Your task to perform on an android device: turn off smart reply in the gmail app Image 0: 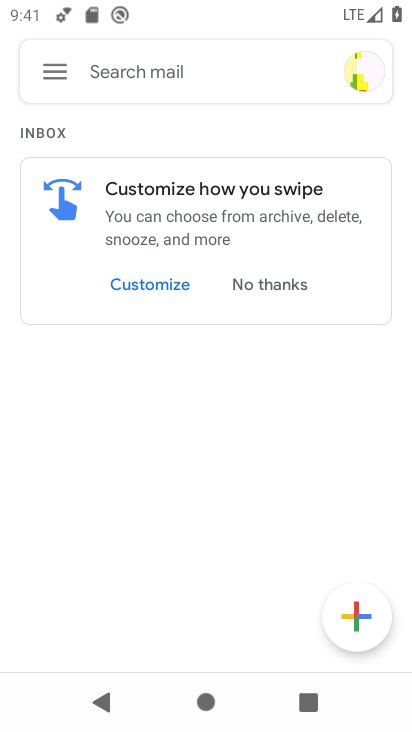
Step 0: click (57, 58)
Your task to perform on an android device: turn off smart reply in the gmail app Image 1: 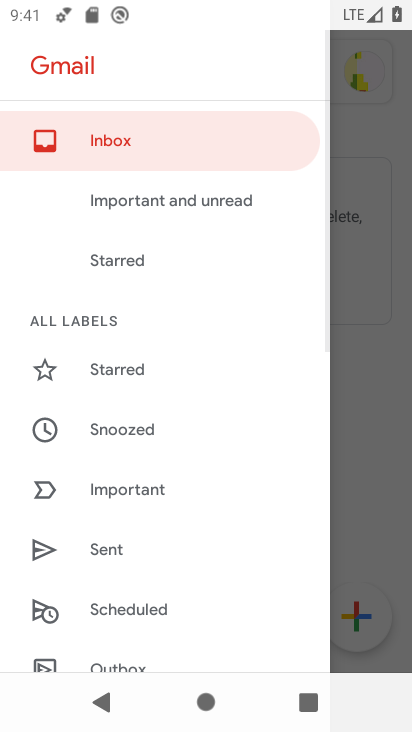
Step 1: drag from (234, 622) to (214, 244)
Your task to perform on an android device: turn off smart reply in the gmail app Image 2: 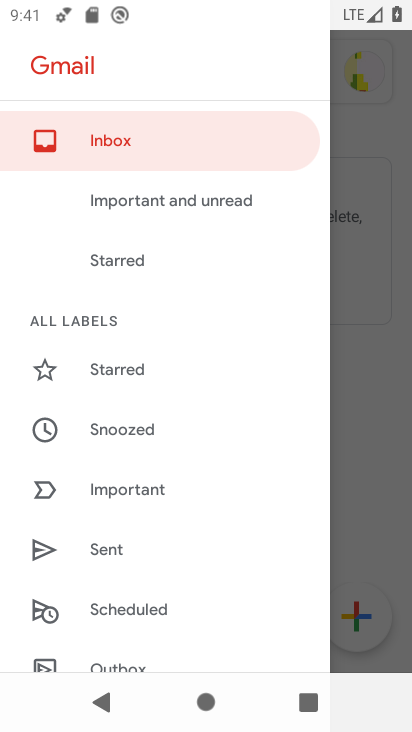
Step 2: drag from (233, 613) to (256, 287)
Your task to perform on an android device: turn off smart reply in the gmail app Image 3: 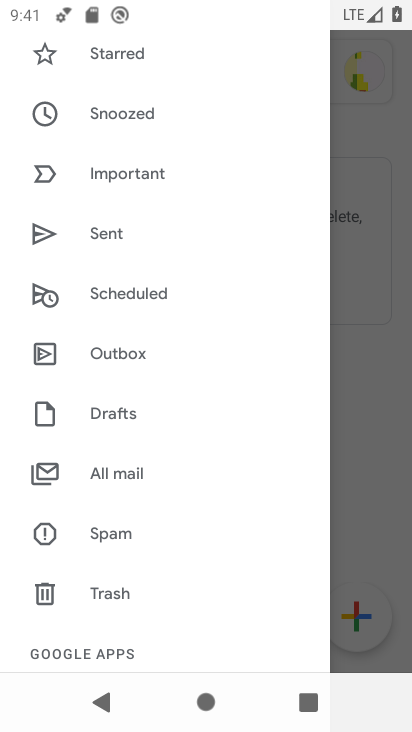
Step 3: drag from (214, 621) to (212, 274)
Your task to perform on an android device: turn off smart reply in the gmail app Image 4: 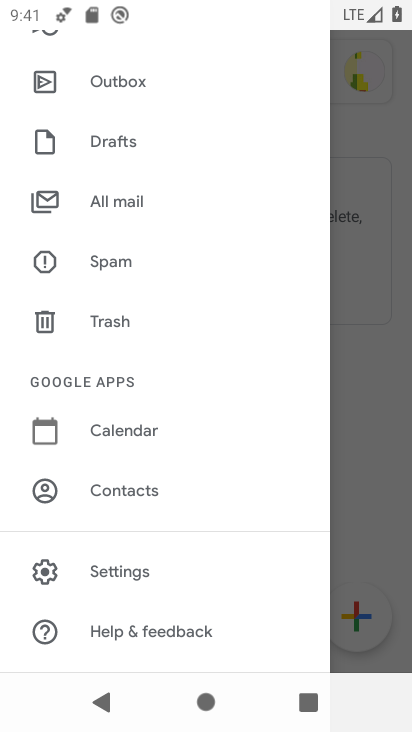
Step 4: click (131, 569)
Your task to perform on an android device: turn off smart reply in the gmail app Image 5: 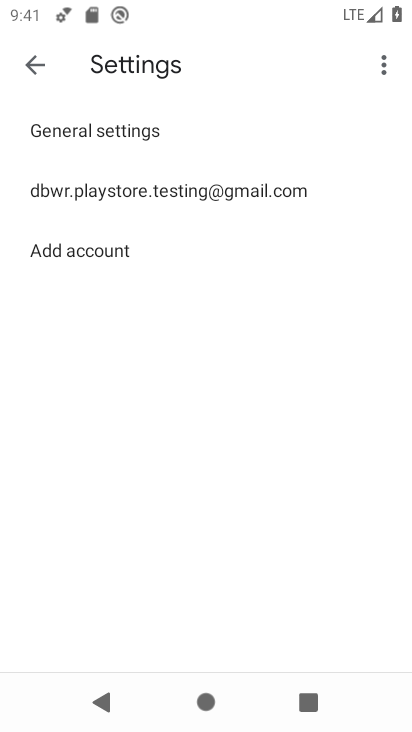
Step 5: click (159, 185)
Your task to perform on an android device: turn off smart reply in the gmail app Image 6: 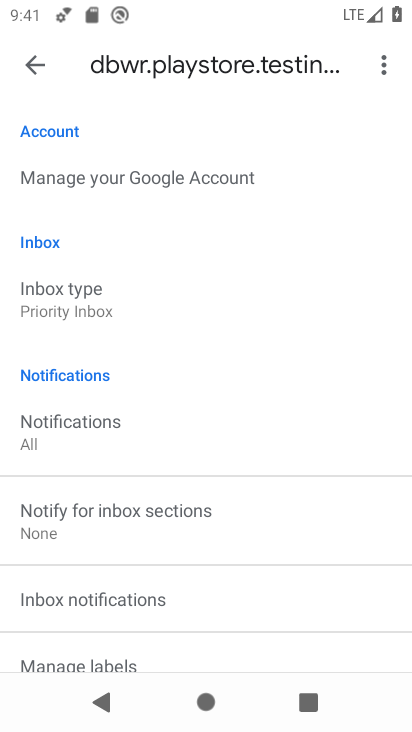
Step 6: task complete